Your task to perform on an android device: Go to Yahoo.com Image 0: 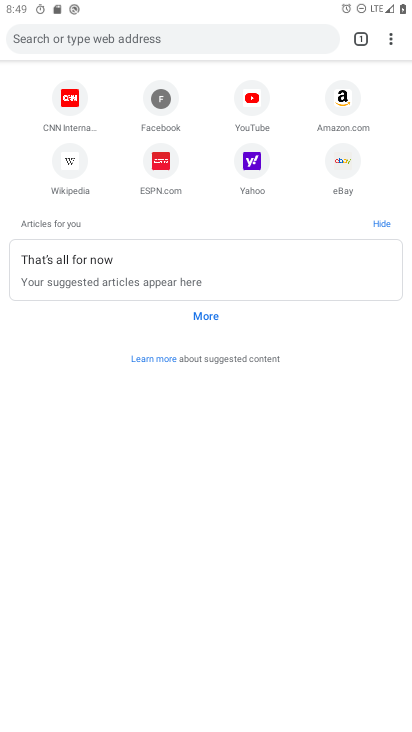
Step 0: press home button
Your task to perform on an android device: Go to Yahoo.com Image 1: 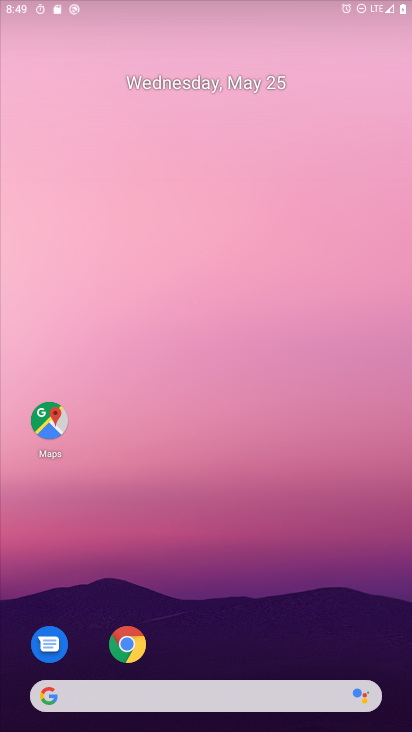
Step 1: drag from (378, 636) to (312, 36)
Your task to perform on an android device: Go to Yahoo.com Image 2: 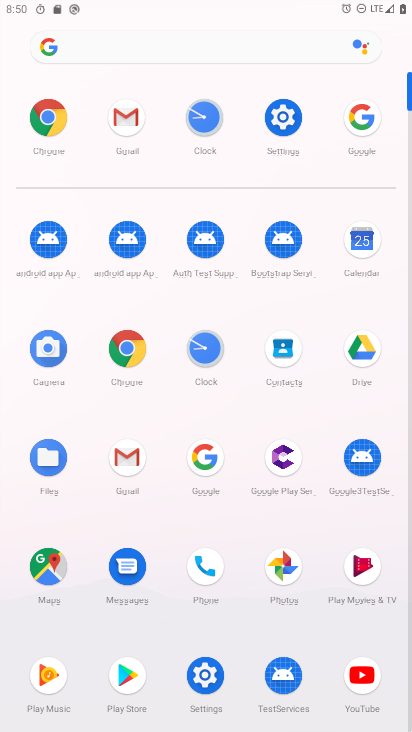
Step 2: click (200, 469)
Your task to perform on an android device: Go to Yahoo.com Image 3: 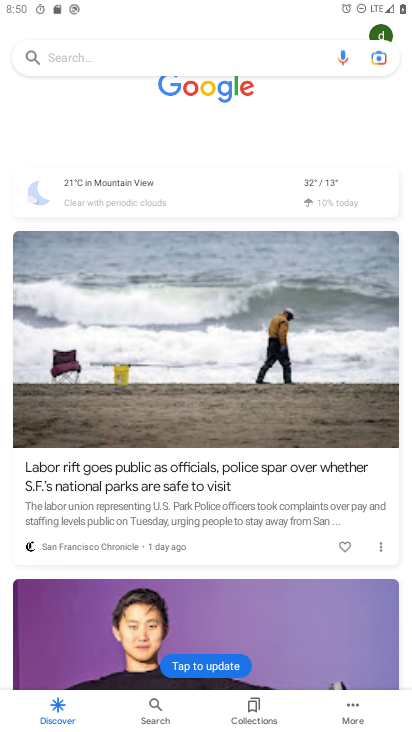
Step 3: click (116, 54)
Your task to perform on an android device: Go to Yahoo.com Image 4: 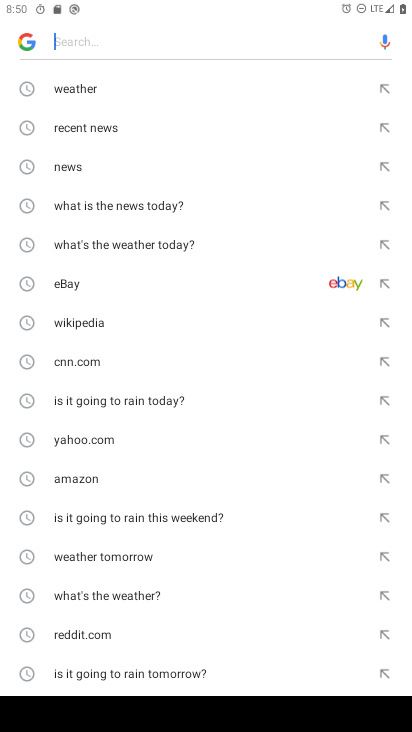
Step 4: click (110, 452)
Your task to perform on an android device: Go to Yahoo.com Image 5: 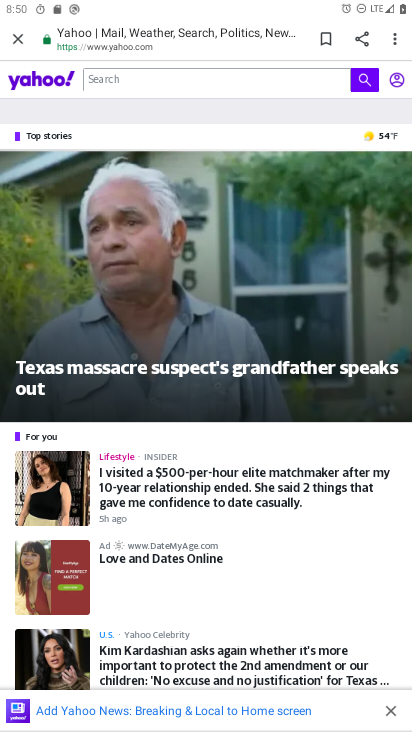
Step 5: task complete